Your task to perform on an android device: Open Amazon Image 0: 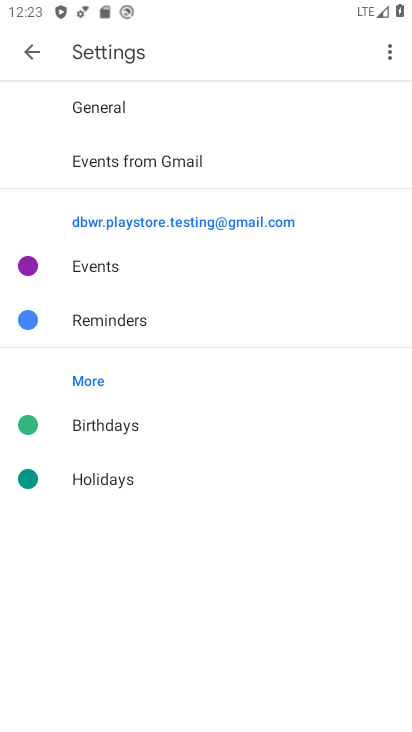
Step 0: press home button
Your task to perform on an android device: Open Amazon Image 1: 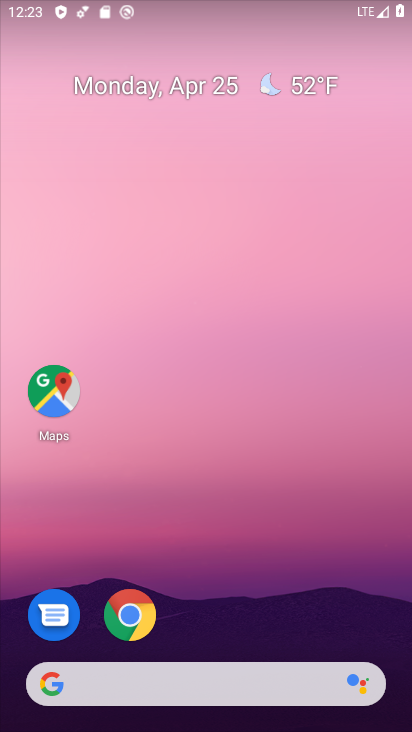
Step 1: drag from (230, 543) to (353, 115)
Your task to perform on an android device: Open Amazon Image 2: 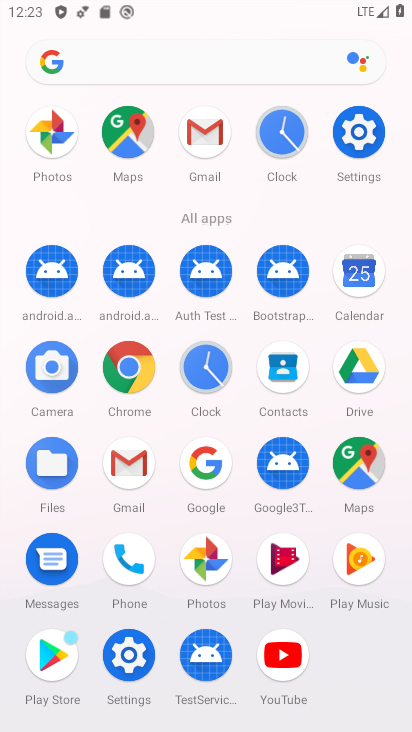
Step 2: click (135, 350)
Your task to perform on an android device: Open Amazon Image 3: 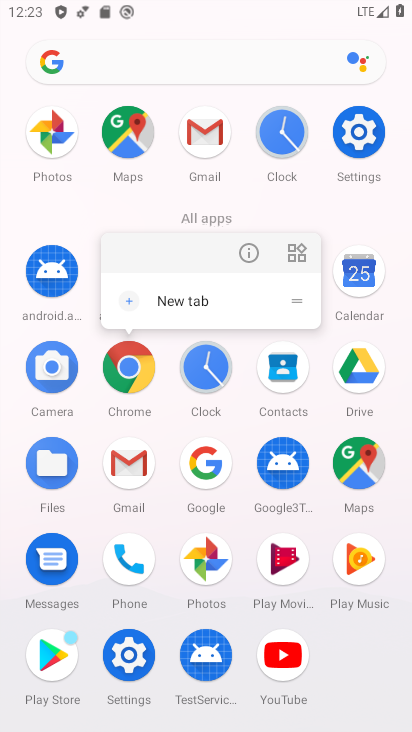
Step 3: click (124, 378)
Your task to perform on an android device: Open Amazon Image 4: 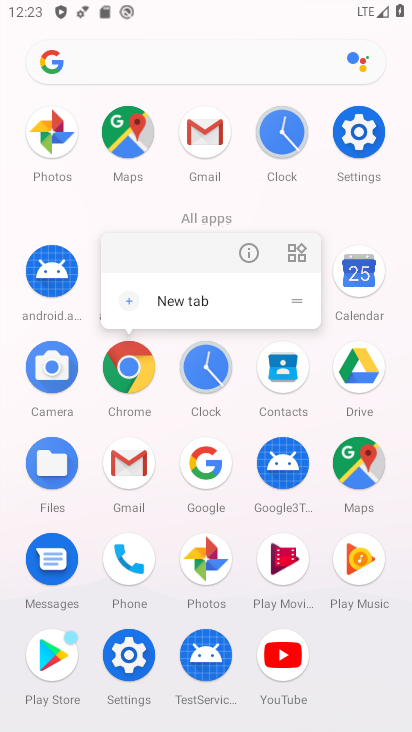
Step 4: click (129, 375)
Your task to perform on an android device: Open Amazon Image 5: 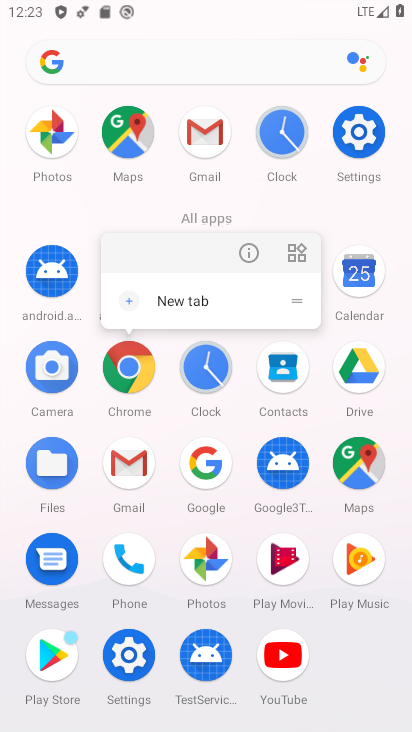
Step 5: click (134, 371)
Your task to perform on an android device: Open Amazon Image 6: 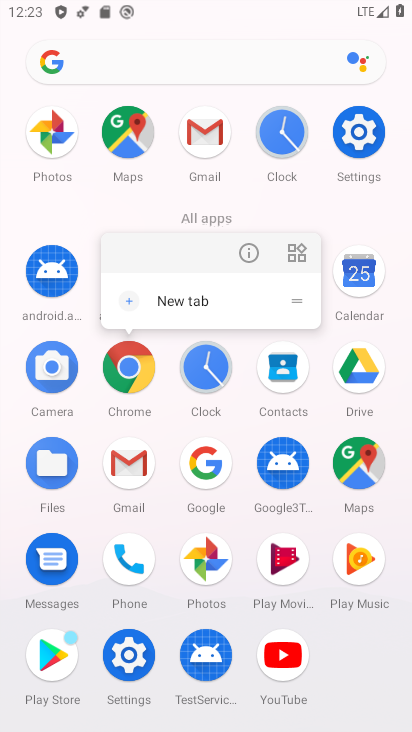
Step 6: click (136, 370)
Your task to perform on an android device: Open Amazon Image 7: 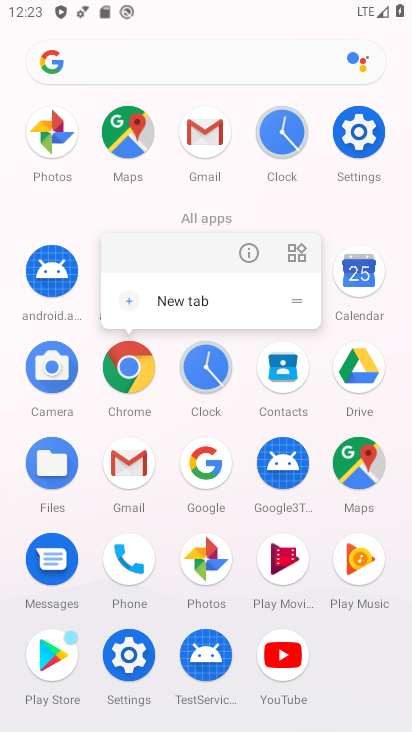
Step 7: click (131, 371)
Your task to perform on an android device: Open Amazon Image 8: 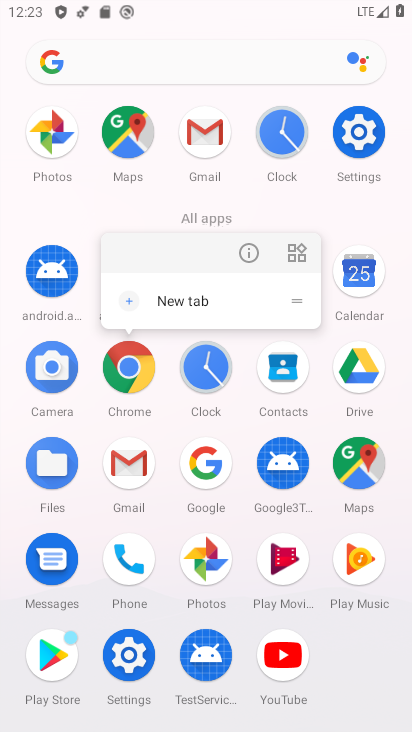
Step 8: click (132, 379)
Your task to perform on an android device: Open Amazon Image 9: 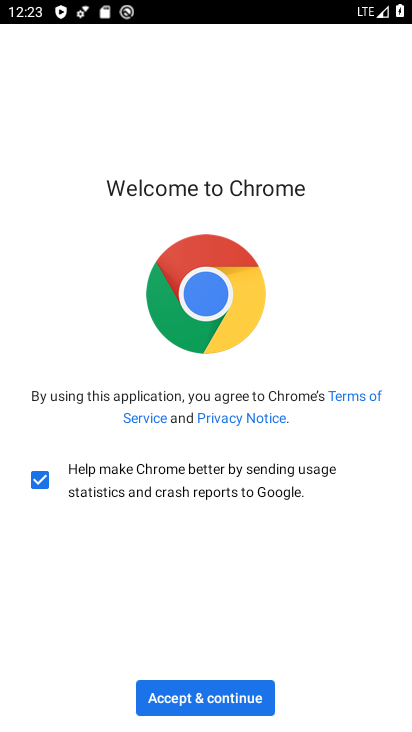
Step 9: click (193, 693)
Your task to perform on an android device: Open Amazon Image 10: 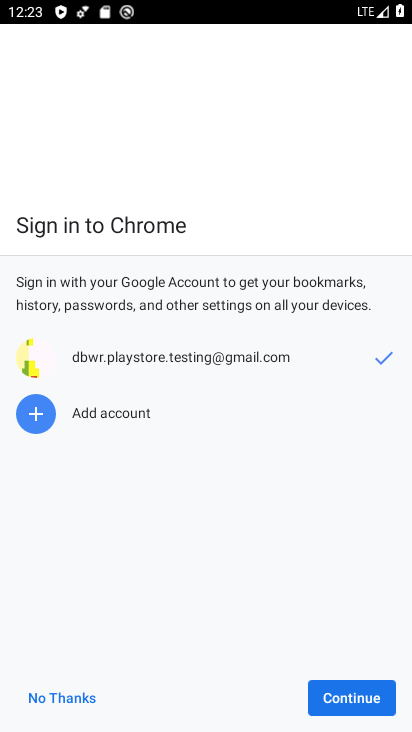
Step 10: click (361, 704)
Your task to perform on an android device: Open Amazon Image 11: 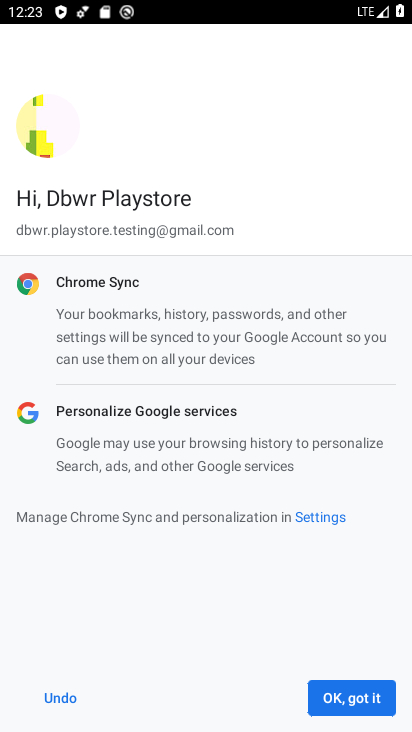
Step 11: click (361, 703)
Your task to perform on an android device: Open Amazon Image 12: 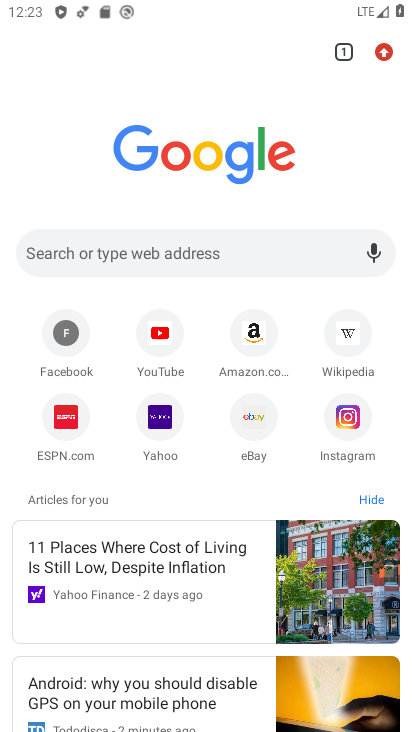
Step 12: click (252, 333)
Your task to perform on an android device: Open Amazon Image 13: 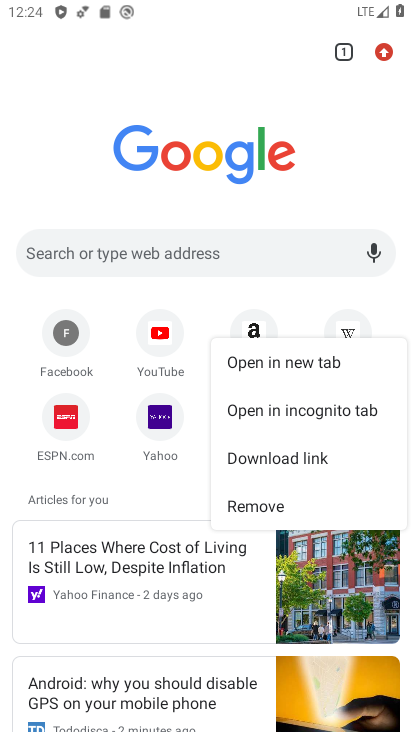
Step 13: click (255, 329)
Your task to perform on an android device: Open Amazon Image 14: 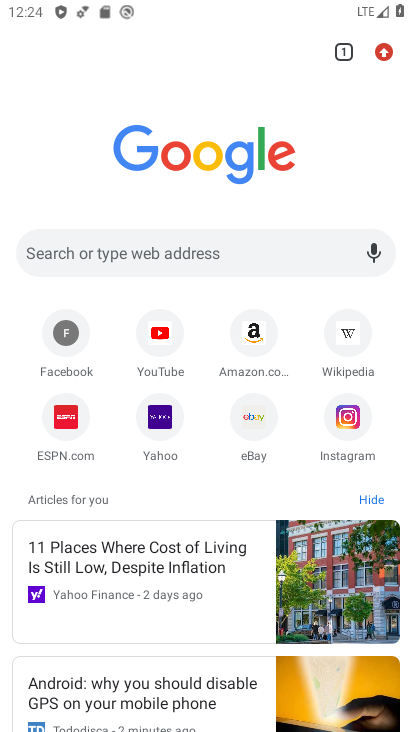
Step 14: click (253, 333)
Your task to perform on an android device: Open Amazon Image 15: 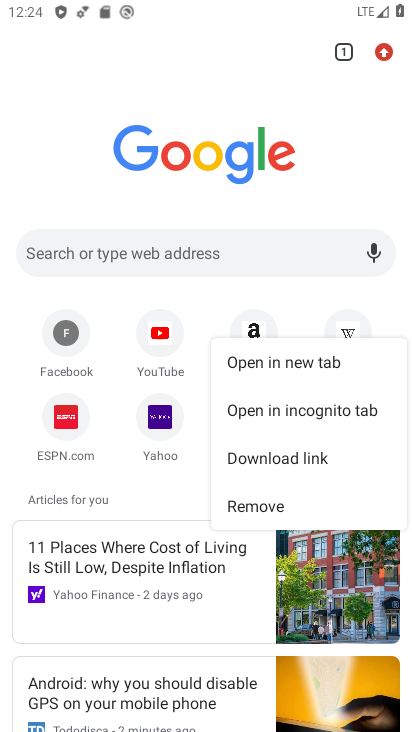
Step 15: click (252, 332)
Your task to perform on an android device: Open Amazon Image 16: 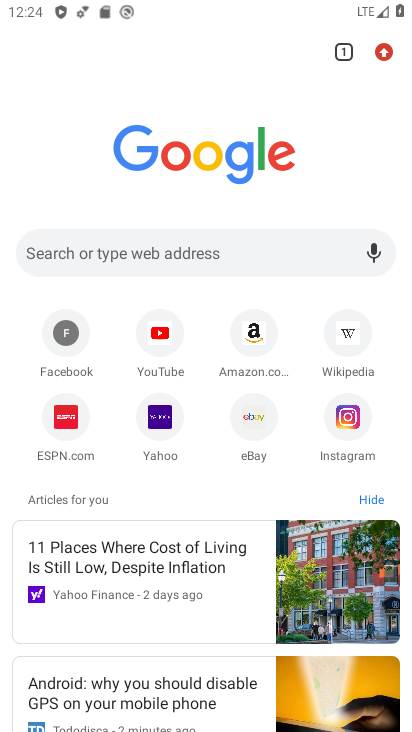
Step 16: click (253, 337)
Your task to perform on an android device: Open Amazon Image 17: 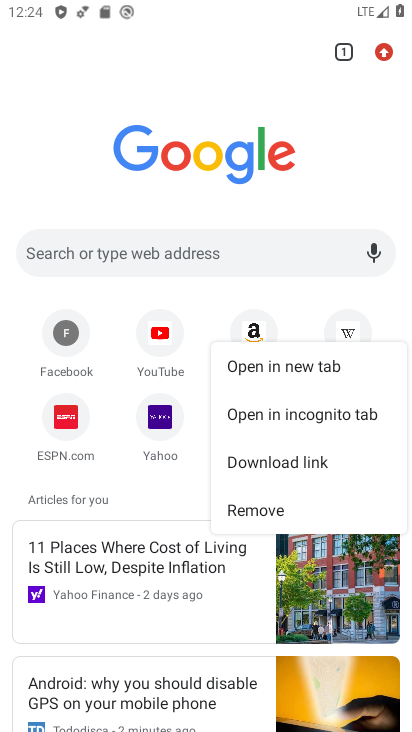
Step 17: click (256, 336)
Your task to perform on an android device: Open Amazon Image 18: 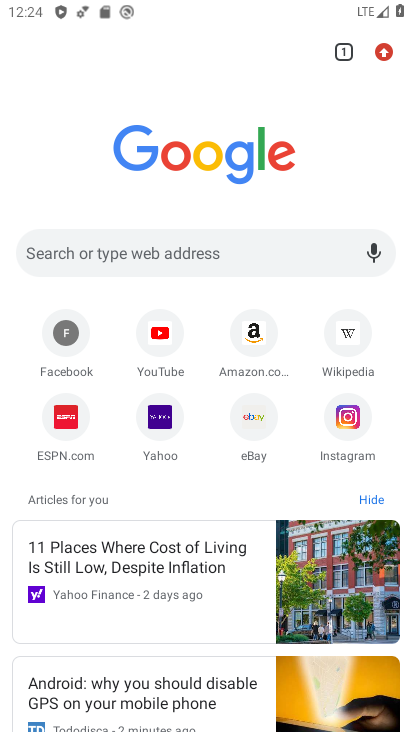
Step 18: click (263, 330)
Your task to perform on an android device: Open Amazon Image 19: 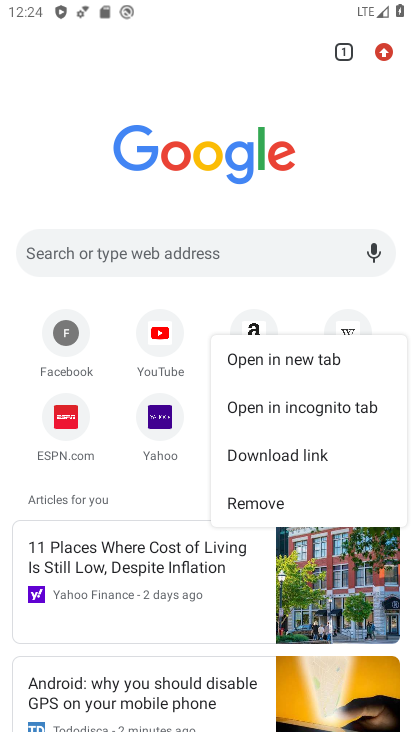
Step 19: click (258, 322)
Your task to perform on an android device: Open Amazon Image 20: 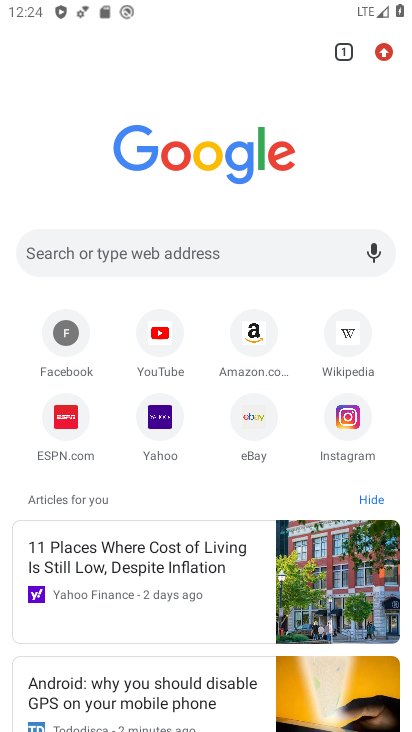
Step 20: click (255, 343)
Your task to perform on an android device: Open Amazon Image 21: 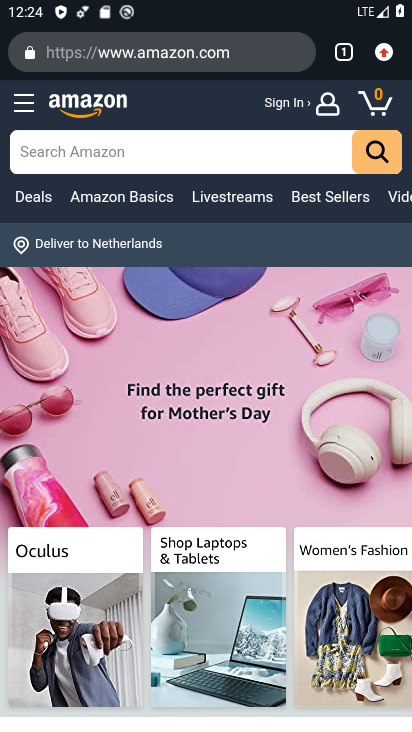
Step 21: task complete